Your task to perform on an android device: Open Google Maps Image 0: 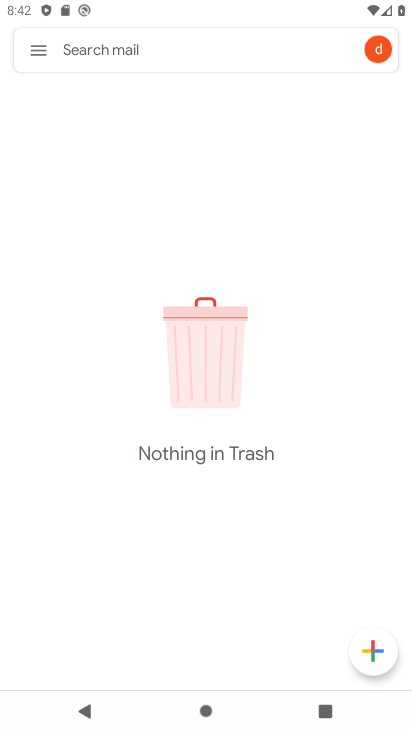
Step 0: press home button
Your task to perform on an android device: Open Google Maps Image 1: 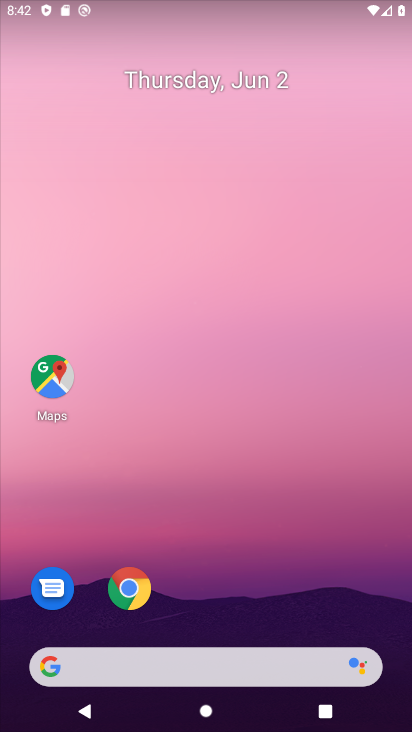
Step 1: click (38, 379)
Your task to perform on an android device: Open Google Maps Image 2: 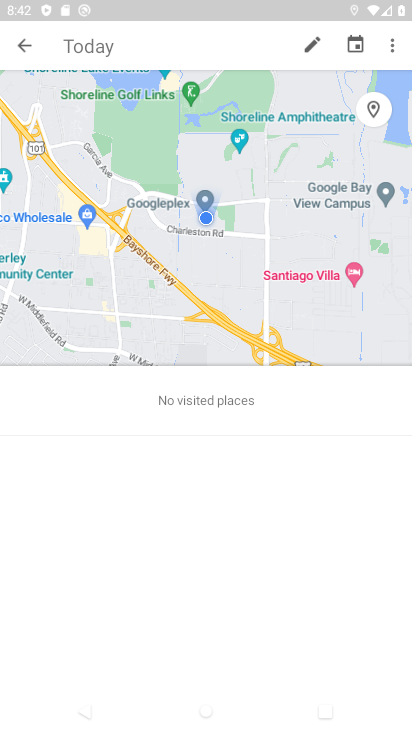
Step 2: click (23, 33)
Your task to perform on an android device: Open Google Maps Image 3: 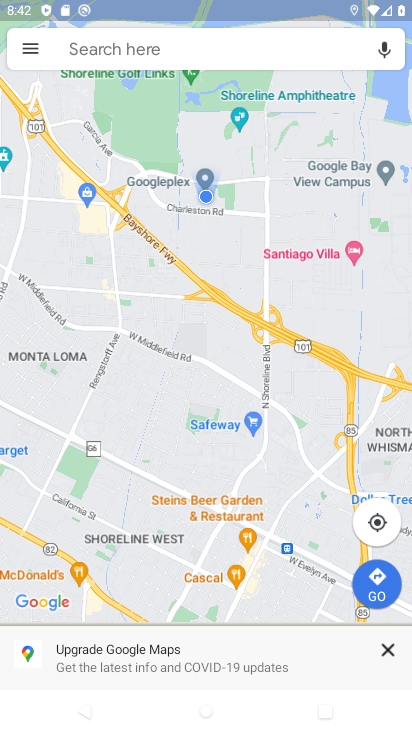
Step 3: task complete